Your task to perform on an android device: Open Maps and search for coffee Image 0: 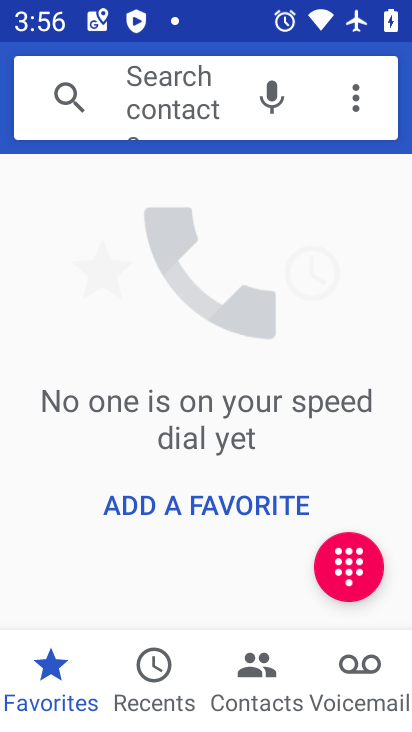
Step 0: press home button
Your task to perform on an android device: Open Maps and search for coffee Image 1: 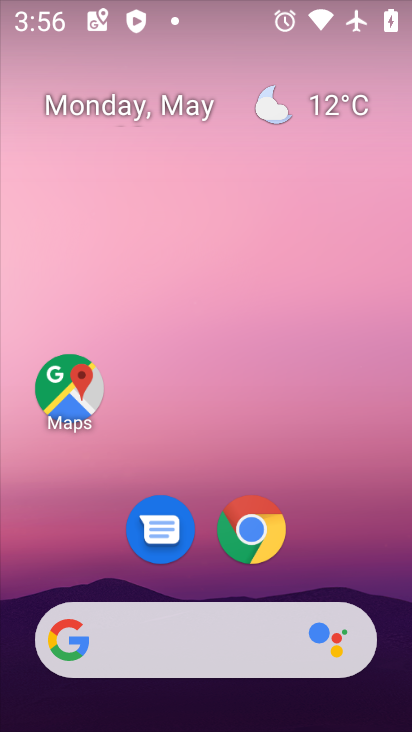
Step 1: click (72, 389)
Your task to perform on an android device: Open Maps and search for coffee Image 2: 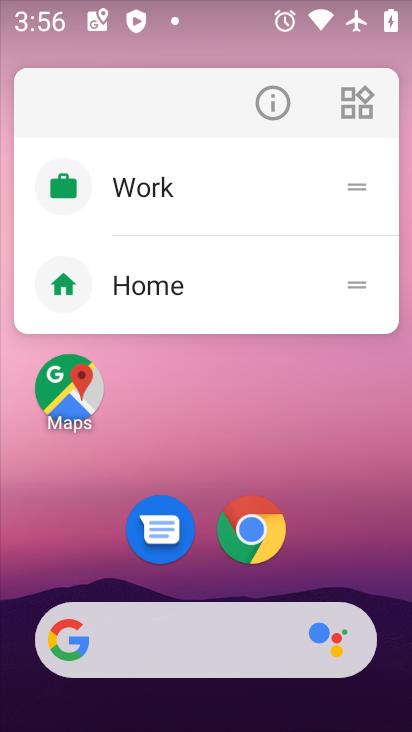
Step 2: click (72, 389)
Your task to perform on an android device: Open Maps and search for coffee Image 3: 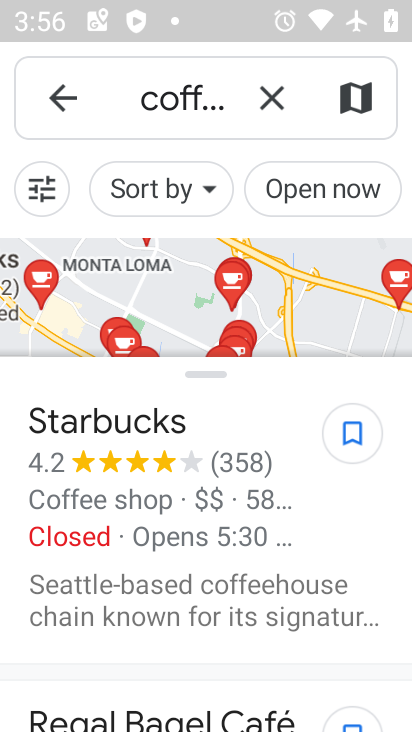
Step 3: task complete